Your task to perform on an android device: Open accessibility settings Image 0: 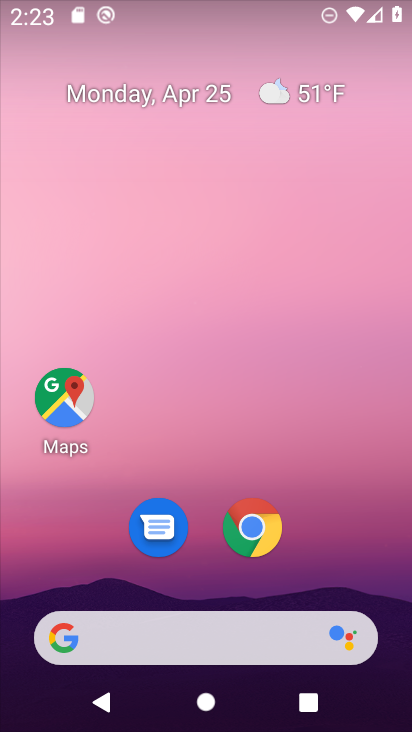
Step 0: drag from (356, 534) to (247, 0)
Your task to perform on an android device: Open accessibility settings Image 1: 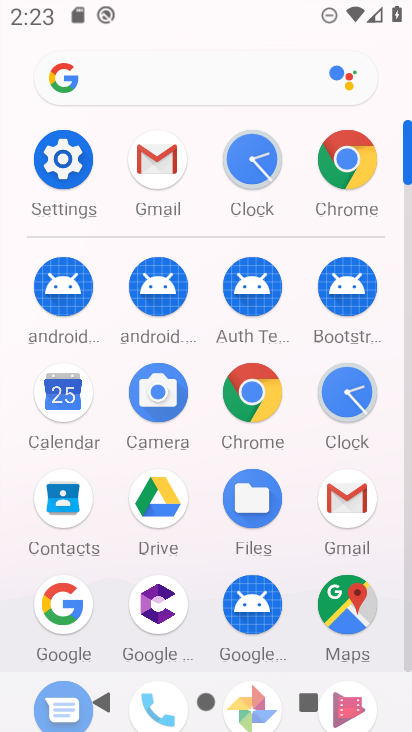
Step 1: drag from (9, 617) to (24, 324)
Your task to perform on an android device: Open accessibility settings Image 2: 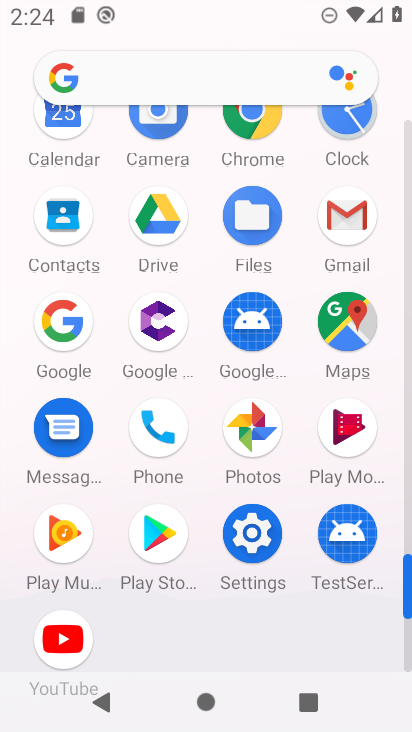
Step 2: click (255, 527)
Your task to perform on an android device: Open accessibility settings Image 3: 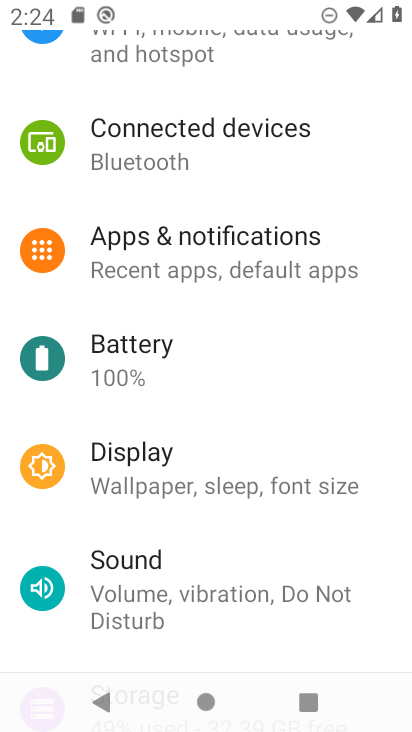
Step 3: drag from (281, 502) to (343, 75)
Your task to perform on an android device: Open accessibility settings Image 4: 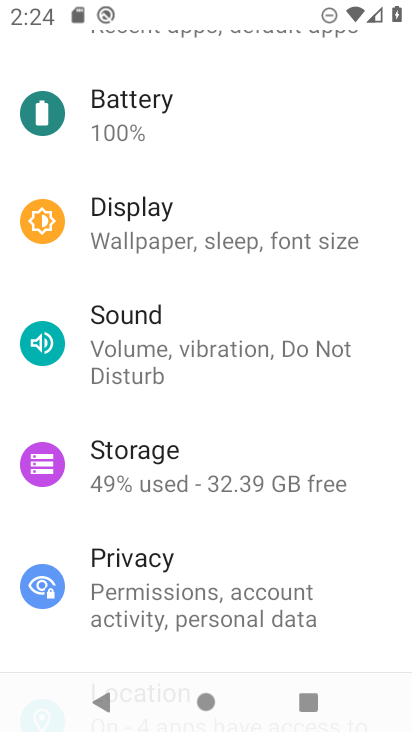
Step 4: drag from (264, 362) to (260, 114)
Your task to perform on an android device: Open accessibility settings Image 5: 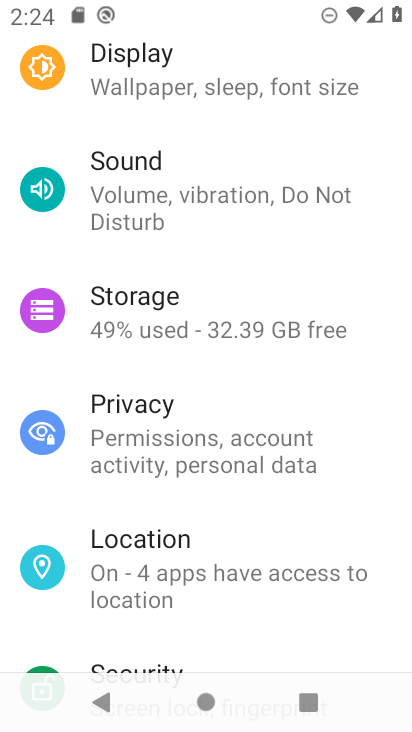
Step 5: drag from (245, 529) to (266, 143)
Your task to perform on an android device: Open accessibility settings Image 6: 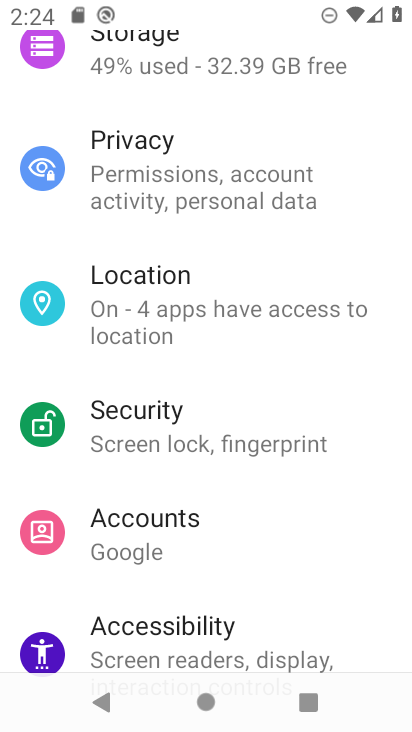
Step 6: drag from (225, 493) to (245, 71)
Your task to perform on an android device: Open accessibility settings Image 7: 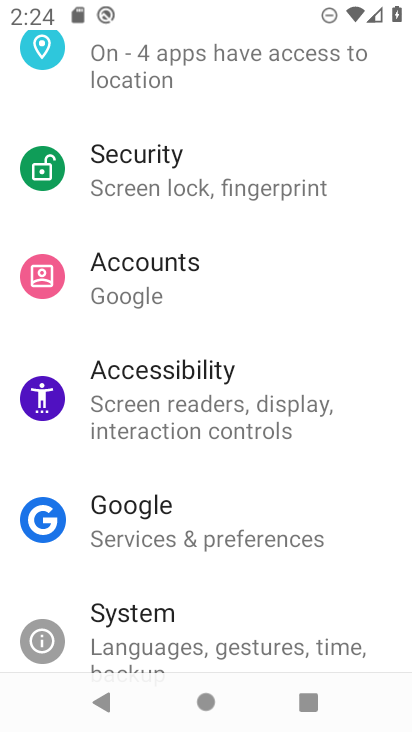
Step 7: drag from (244, 543) to (293, 93)
Your task to perform on an android device: Open accessibility settings Image 8: 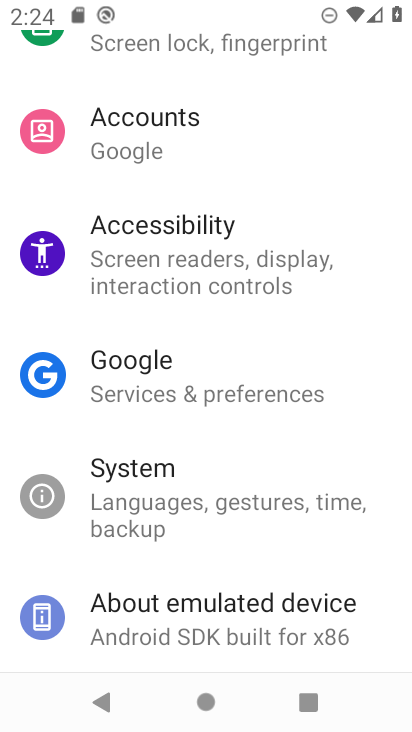
Step 8: drag from (307, 449) to (309, 166)
Your task to perform on an android device: Open accessibility settings Image 9: 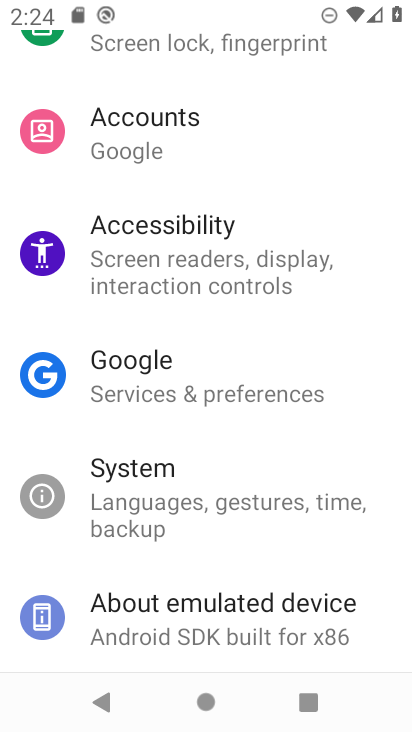
Step 9: click (216, 241)
Your task to perform on an android device: Open accessibility settings Image 10: 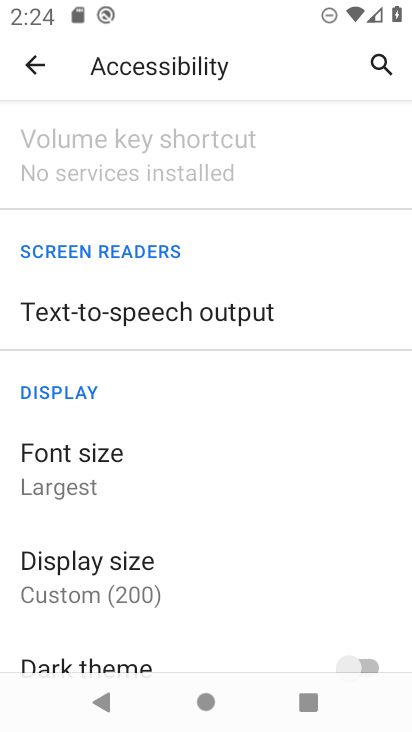
Step 10: task complete